Your task to perform on an android device: delete browsing data in the chrome app Image 0: 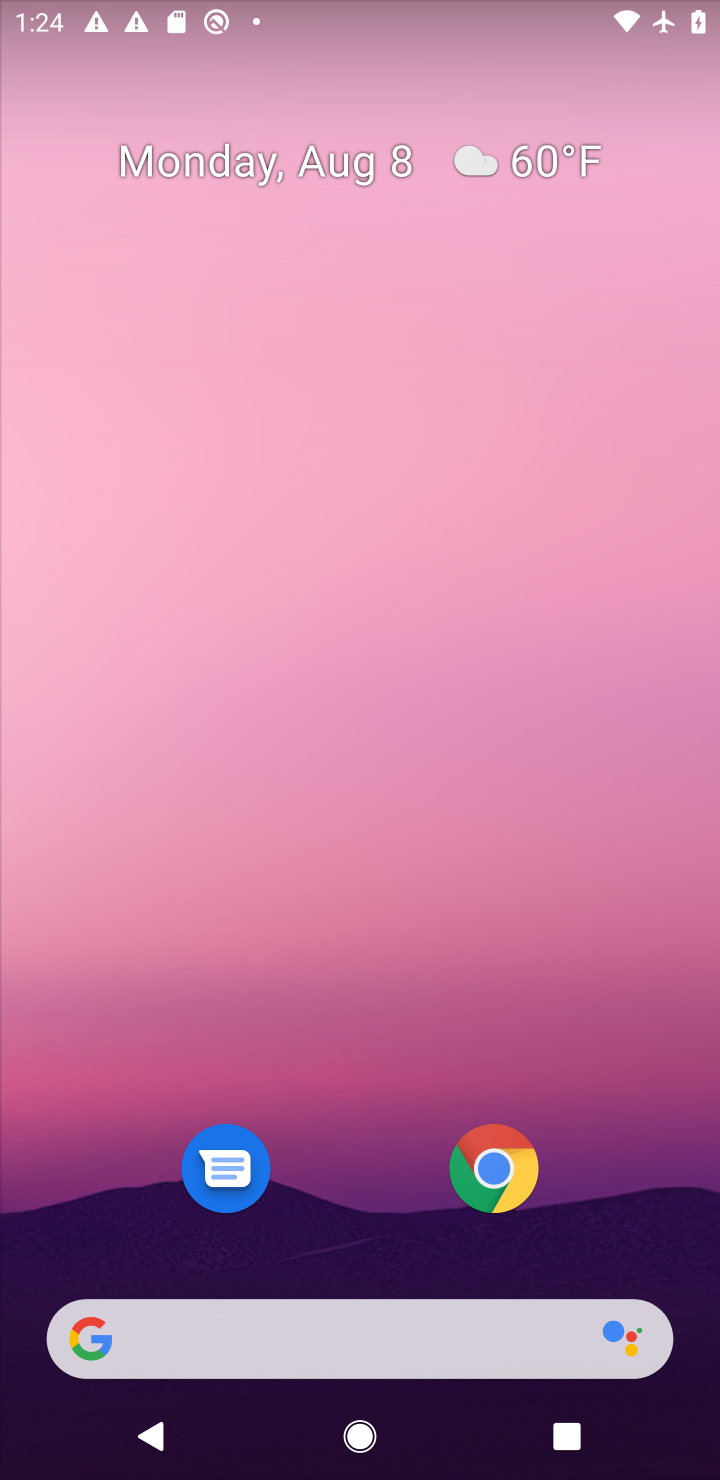
Step 0: click (491, 1196)
Your task to perform on an android device: delete browsing data in the chrome app Image 1: 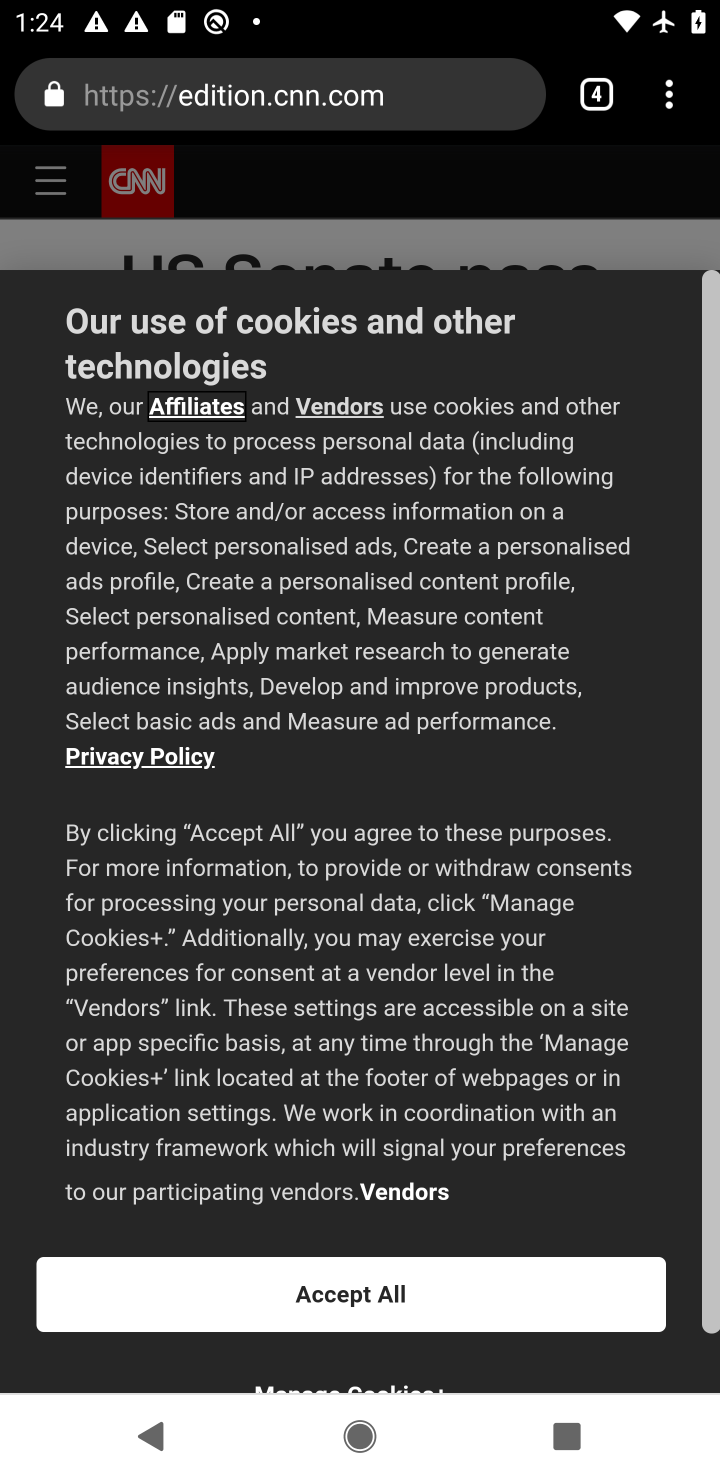
Step 1: click (670, 110)
Your task to perform on an android device: delete browsing data in the chrome app Image 2: 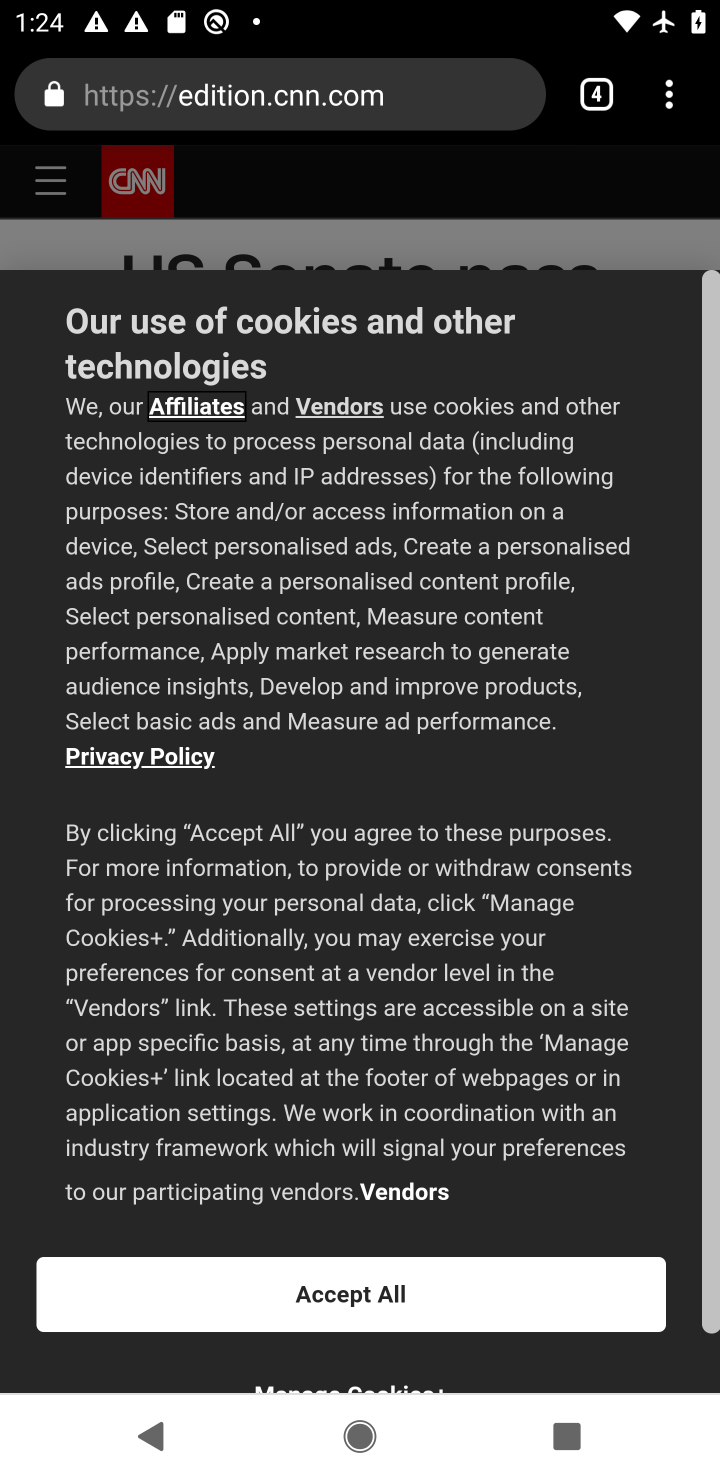
Step 2: click (668, 114)
Your task to perform on an android device: delete browsing data in the chrome app Image 3: 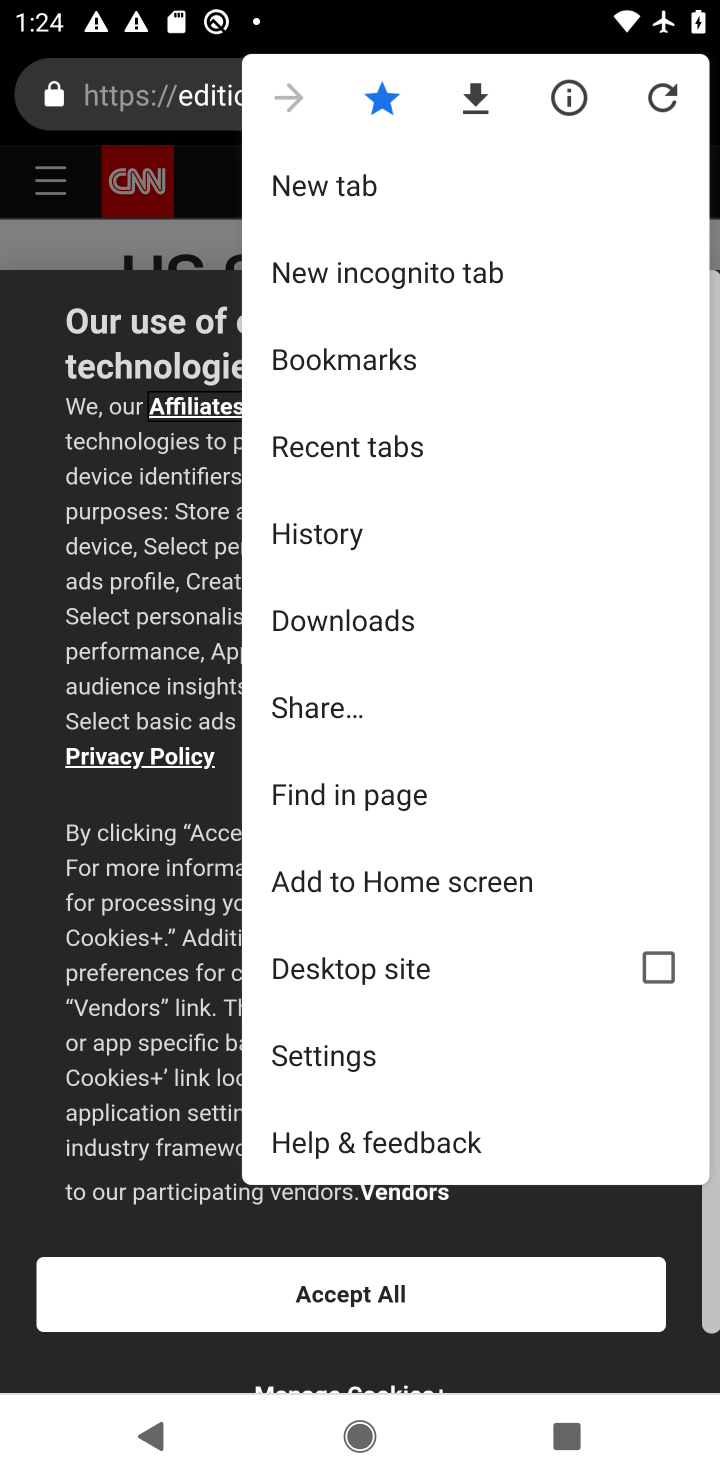
Step 3: click (444, 1065)
Your task to perform on an android device: delete browsing data in the chrome app Image 4: 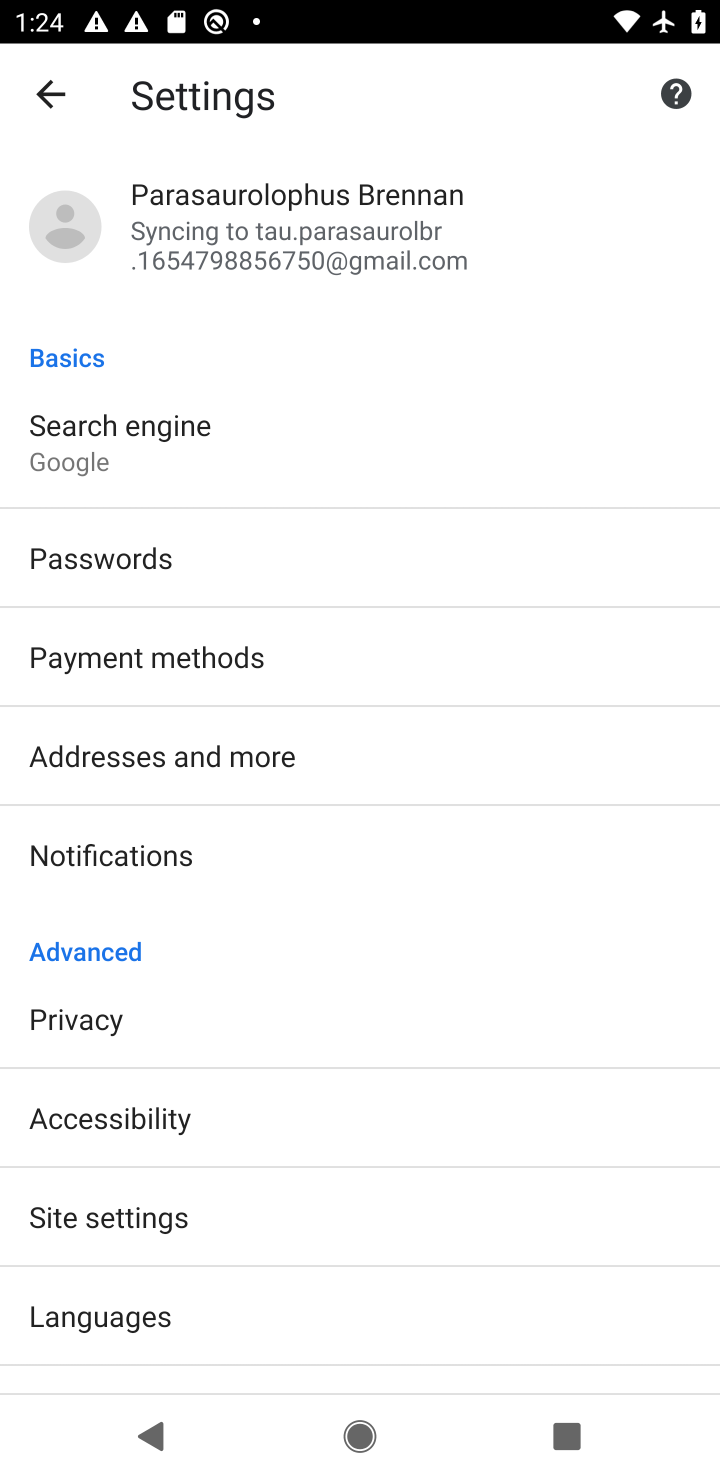
Step 4: task complete